Your task to perform on an android device: turn off notifications settings in the gmail app Image 0: 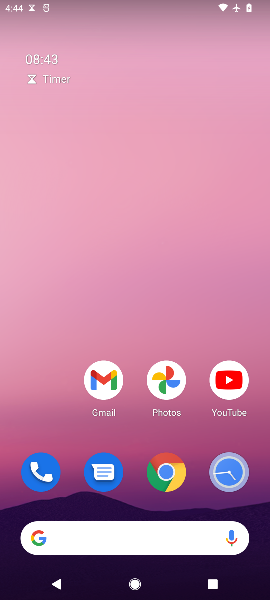
Step 0: drag from (122, 508) to (236, 118)
Your task to perform on an android device: turn off notifications settings in the gmail app Image 1: 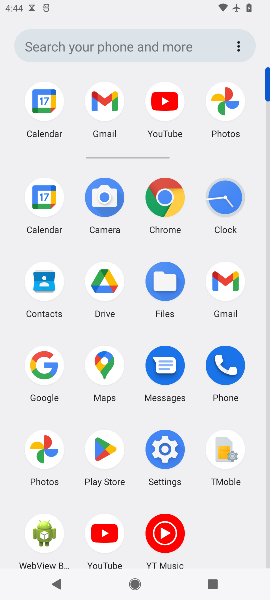
Step 1: click (233, 294)
Your task to perform on an android device: turn off notifications settings in the gmail app Image 2: 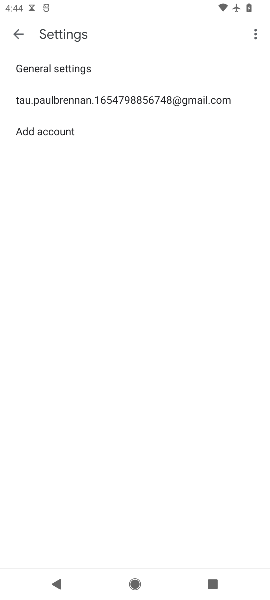
Step 2: click (96, 65)
Your task to perform on an android device: turn off notifications settings in the gmail app Image 3: 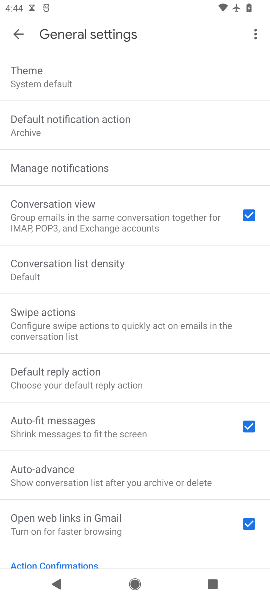
Step 3: click (92, 169)
Your task to perform on an android device: turn off notifications settings in the gmail app Image 4: 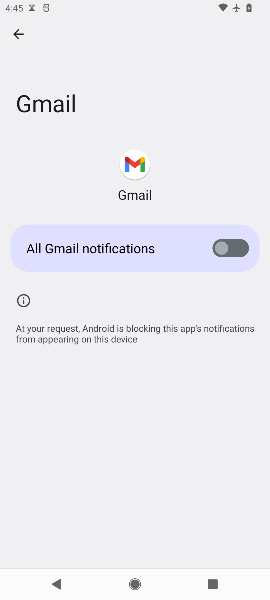
Step 4: task complete